Your task to perform on an android device: see sites visited before in the chrome app Image 0: 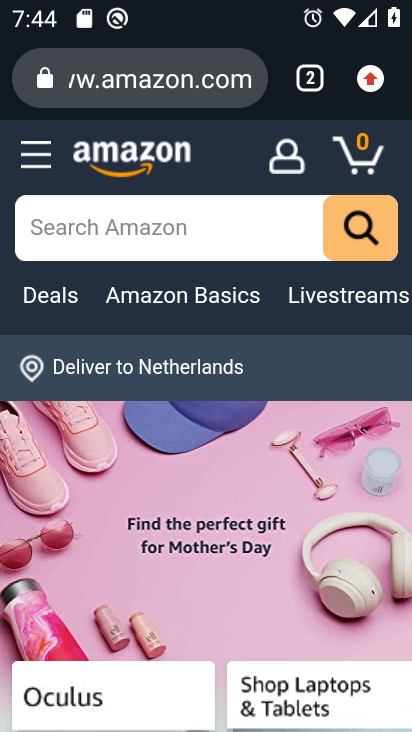
Step 0: press home button
Your task to perform on an android device: see sites visited before in the chrome app Image 1: 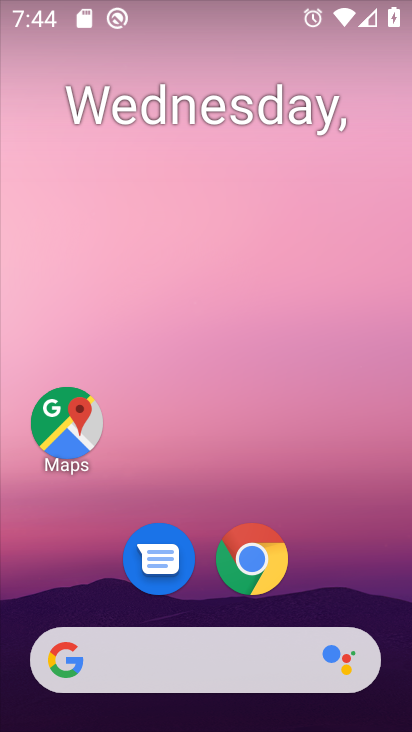
Step 1: drag from (380, 568) to (357, 157)
Your task to perform on an android device: see sites visited before in the chrome app Image 2: 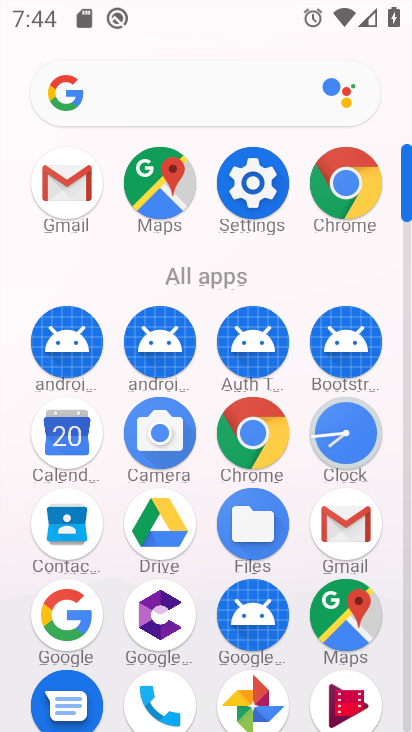
Step 2: click (233, 480)
Your task to perform on an android device: see sites visited before in the chrome app Image 3: 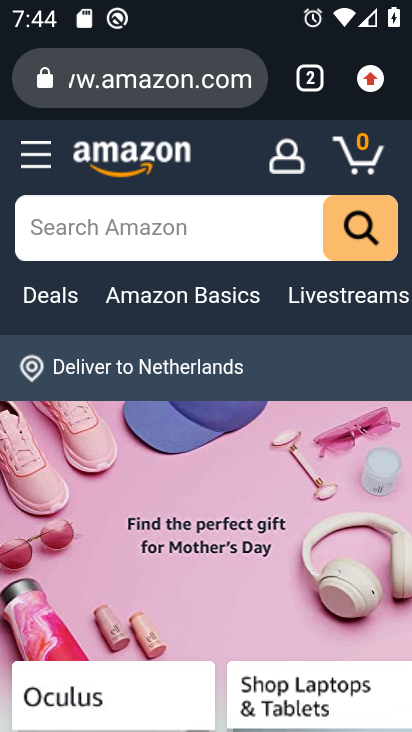
Step 3: click (375, 80)
Your task to perform on an android device: see sites visited before in the chrome app Image 4: 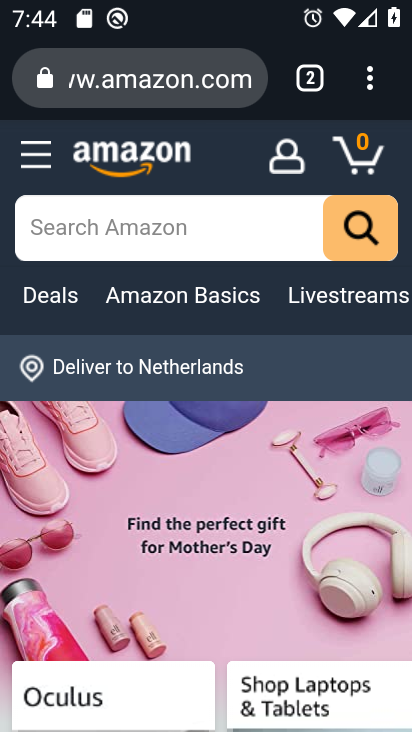
Step 4: click (400, 93)
Your task to perform on an android device: see sites visited before in the chrome app Image 5: 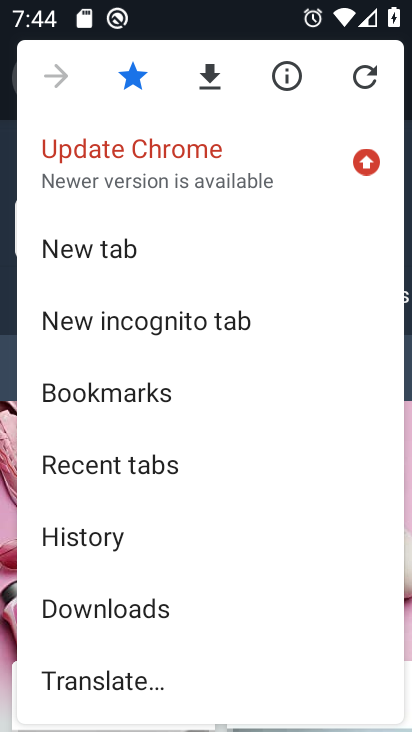
Step 5: click (125, 468)
Your task to perform on an android device: see sites visited before in the chrome app Image 6: 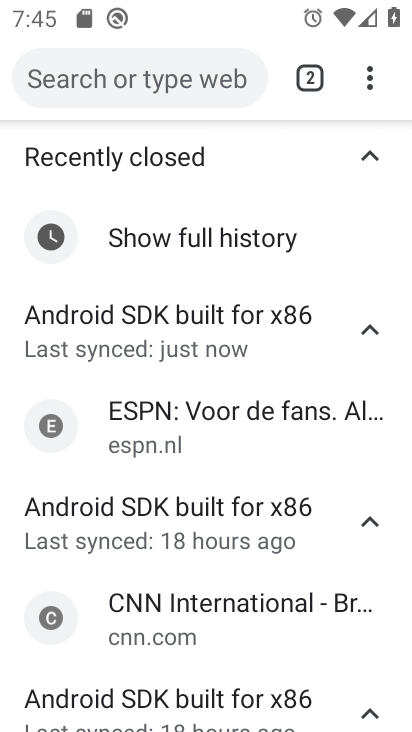
Step 6: task complete